Your task to perform on an android device: change the clock style Image 0: 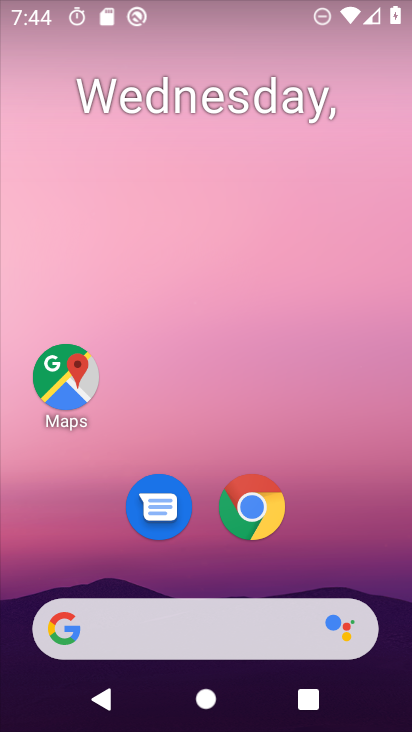
Step 0: drag from (253, 660) to (267, 130)
Your task to perform on an android device: change the clock style Image 1: 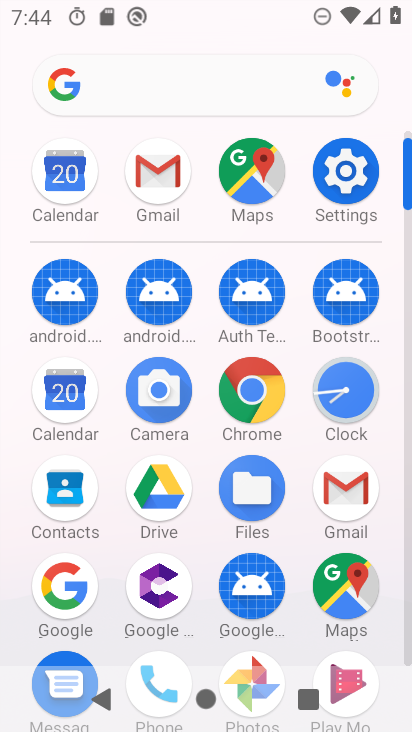
Step 1: click (340, 399)
Your task to perform on an android device: change the clock style Image 2: 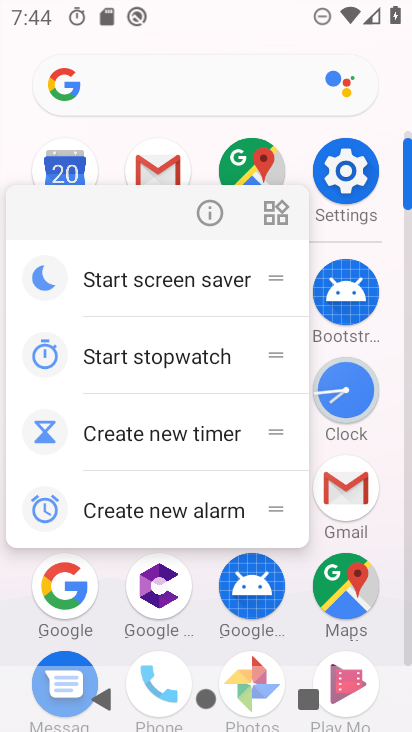
Step 2: click (340, 397)
Your task to perform on an android device: change the clock style Image 3: 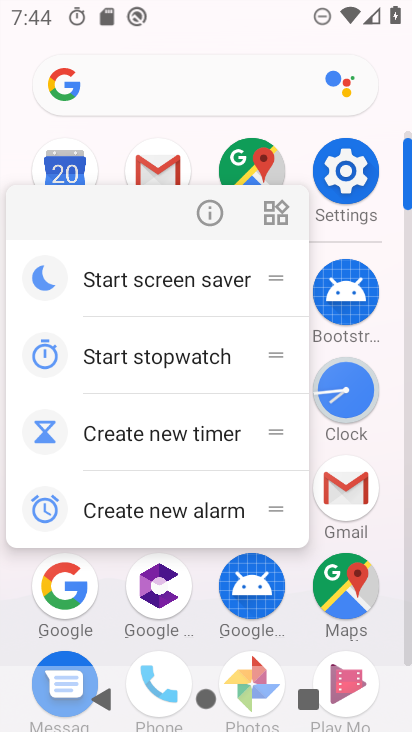
Step 3: click (340, 397)
Your task to perform on an android device: change the clock style Image 4: 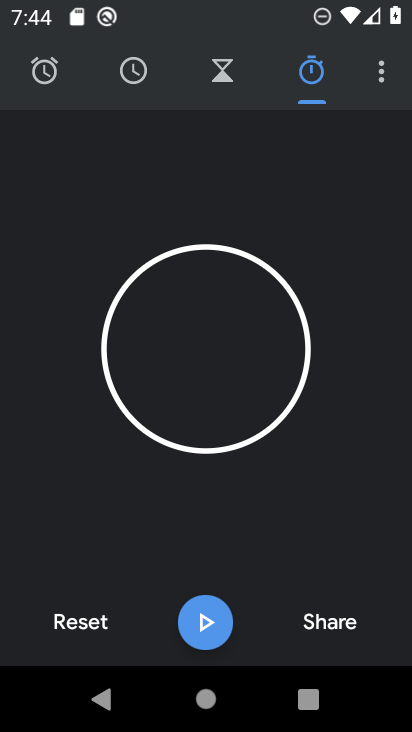
Step 4: click (378, 81)
Your task to perform on an android device: change the clock style Image 5: 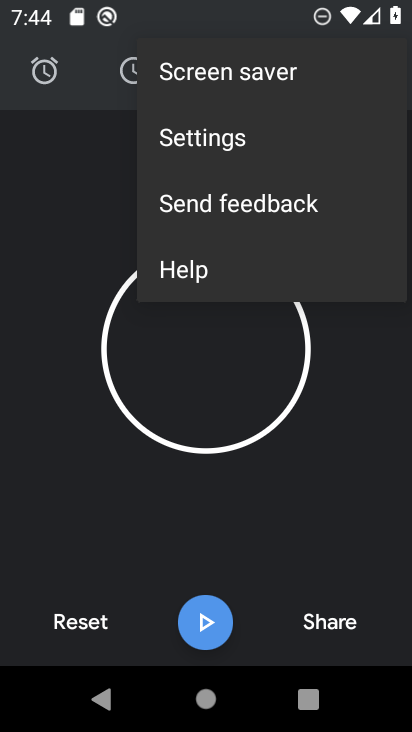
Step 5: click (222, 135)
Your task to perform on an android device: change the clock style Image 6: 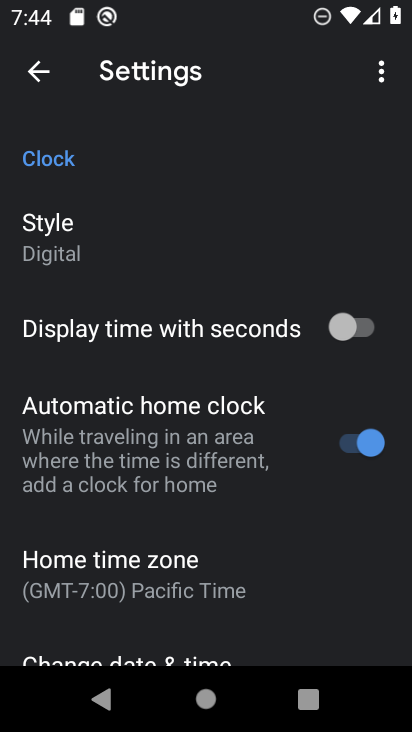
Step 6: click (131, 252)
Your task to perform on an android device: change the clock style Image 7: 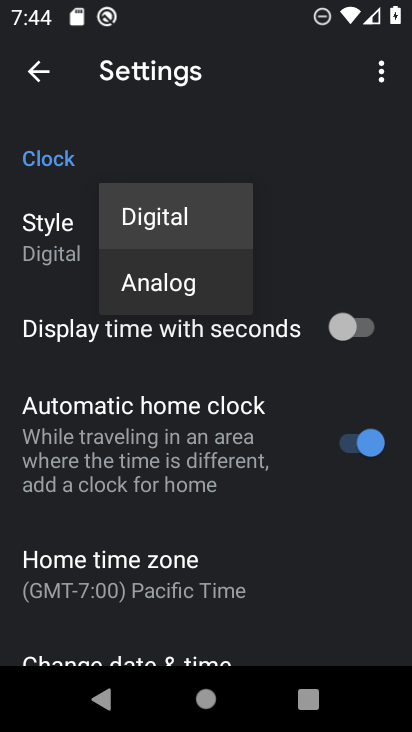
Step 7: click (147, 281)
Your task to perform on an android device: change the clock style Image 8: 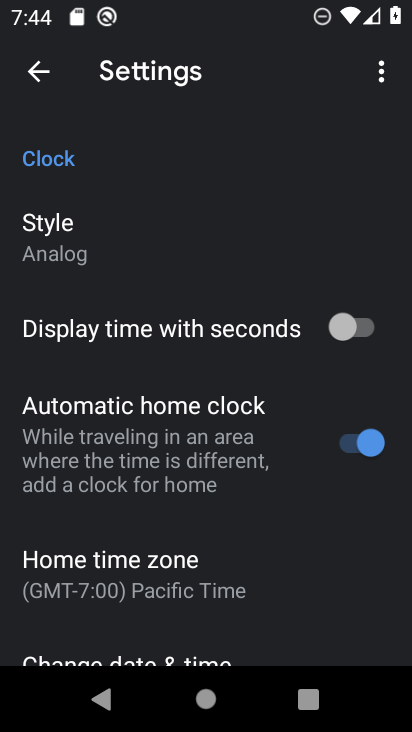
Step 8: task complete